Your task to perform on an android device: toggle javascript in the chrome app Image 0: 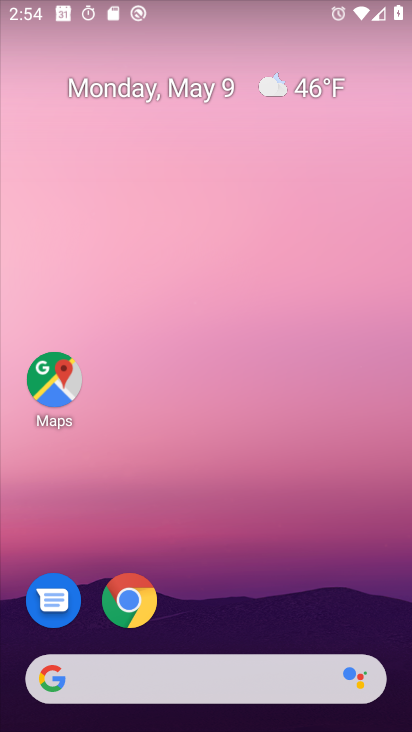
Step 0: click (375, 551)
Your task to perform on an android device: toggle javascript in the chrome app Image 1: 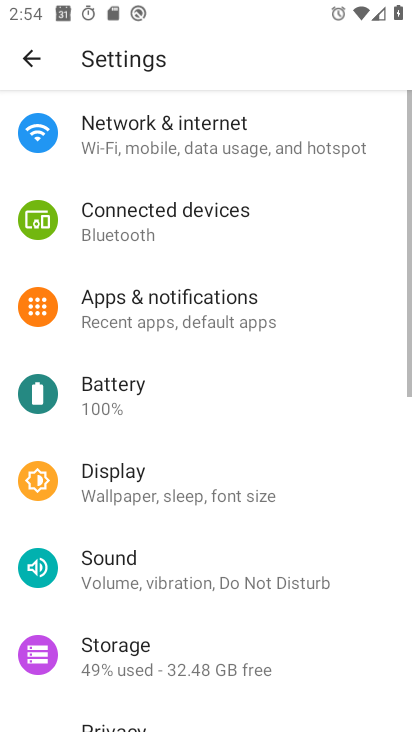
Step 1: drag from (214, 658) to (176, 147)
Your task to perform on an android device: toggle javascript in the chrome app Image 2: 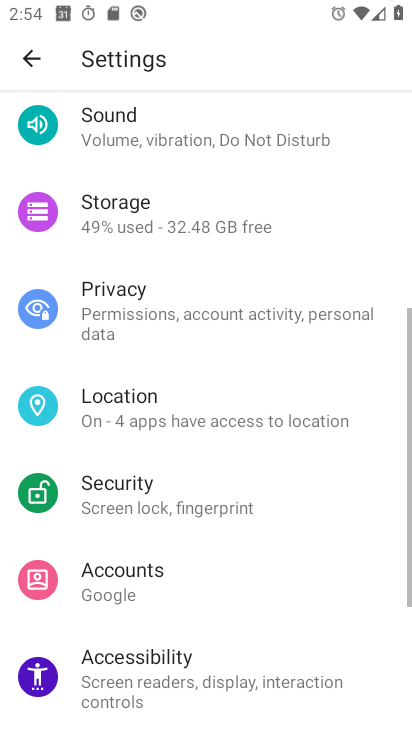
Step 2: press home button
Your task to perform on an android device: toggle javascript in the chrome app Image 3: 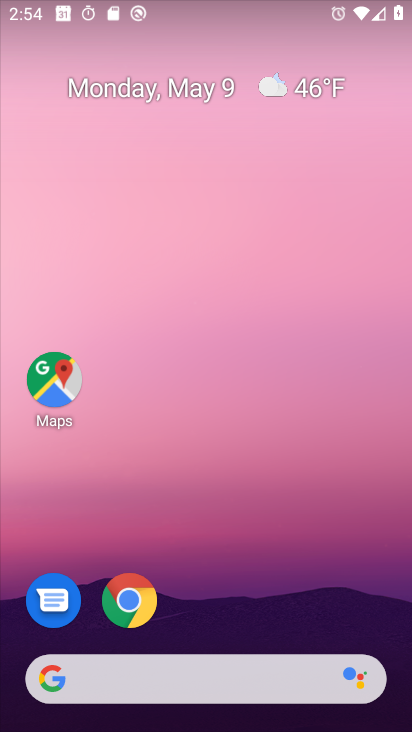
Step 3: click (148, 605)
Your task to perform on an android device: toggle javascript in the chrome app Image 4: 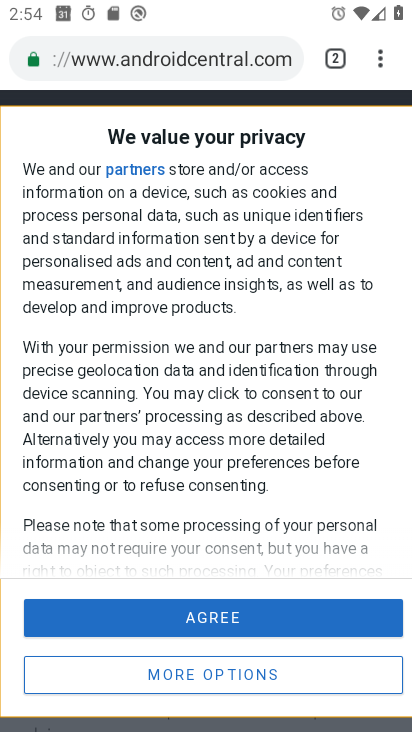
Step 4: click (389, 55)
Your task to perform on an android device: toggle javascript in the chrome app Image 5: 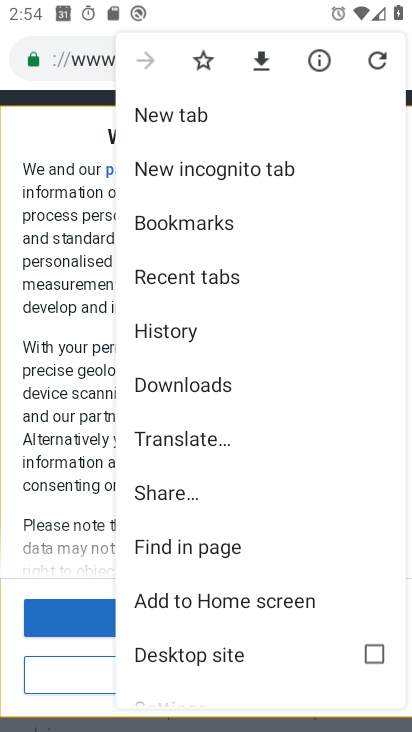
Step 5: drag from (223, 606) to (209, 124)
Your task to perform on an android device: toggle javascript in the chrome app Image 6: 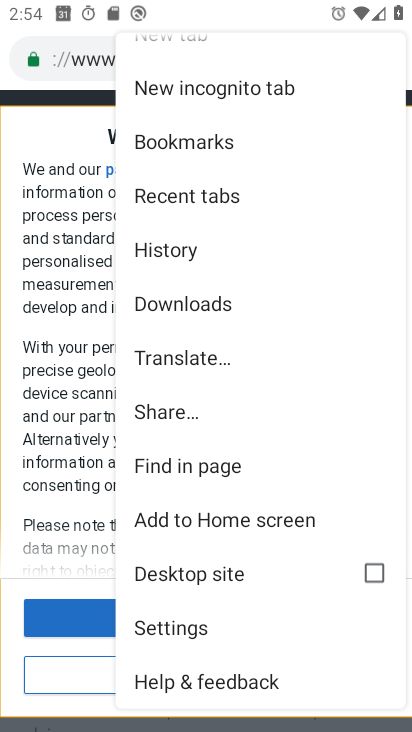
Step 6: click (207, 630)
Your task to perform on an android device: toggle javascript in the chrome app Image 7: 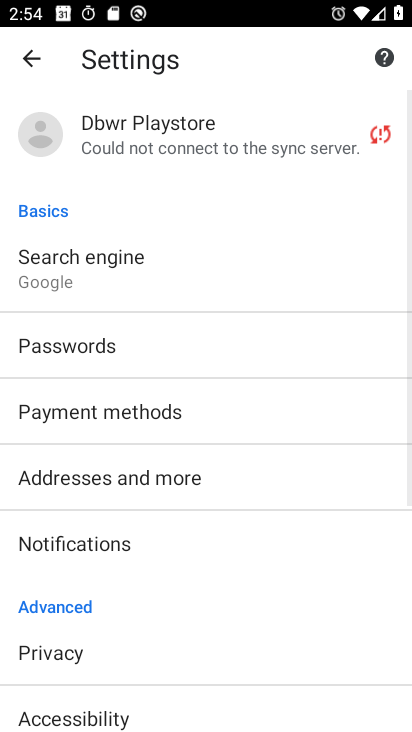
Step 7: drag from (128, 578) to (87, 165)
Your task to perform on an android device: toggle javascript in the chrome app Image 8: 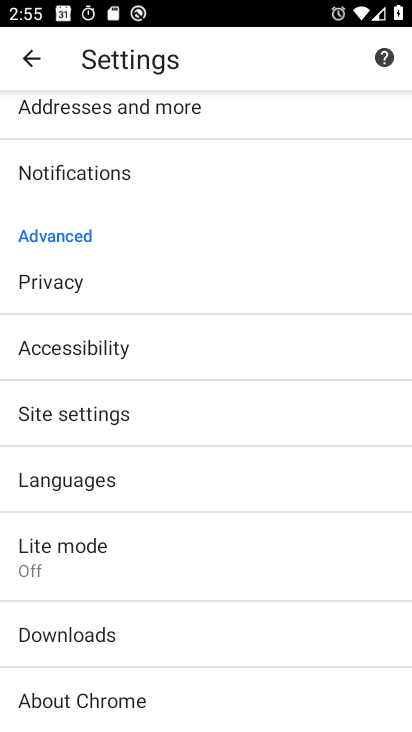
Step 8: click (92, 406)
Your task to perform on an android device: toggle javascript in the chrome app Image 9: 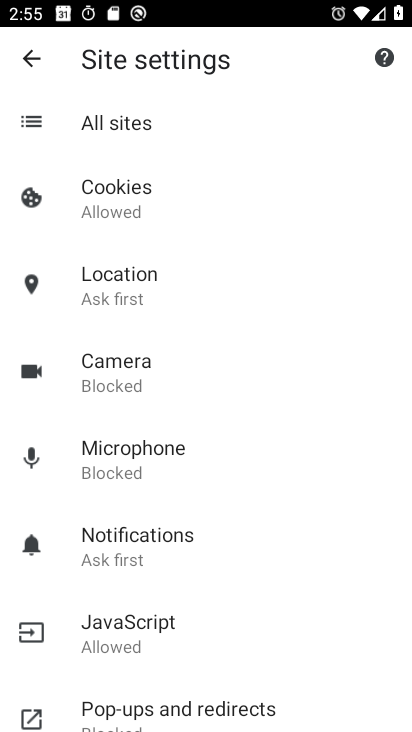
Step 9: click (185, 614)
Your task to perform on an android device: toggle javascript in the chrome app Image 10: 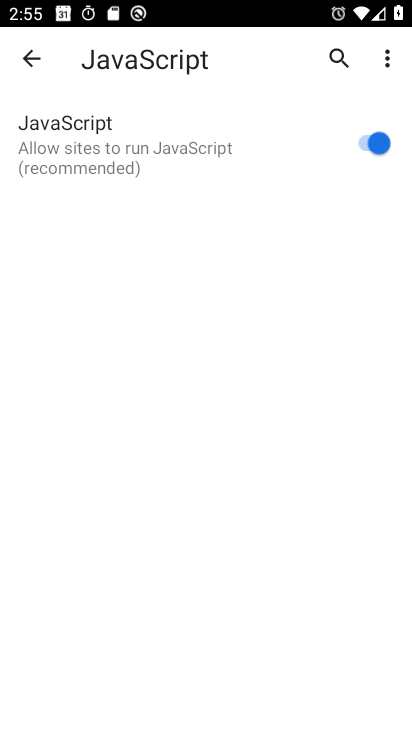
Step 10: click (360, 148)
Your task to perform on an android device: toggle javascript in the chrome app Image 11: 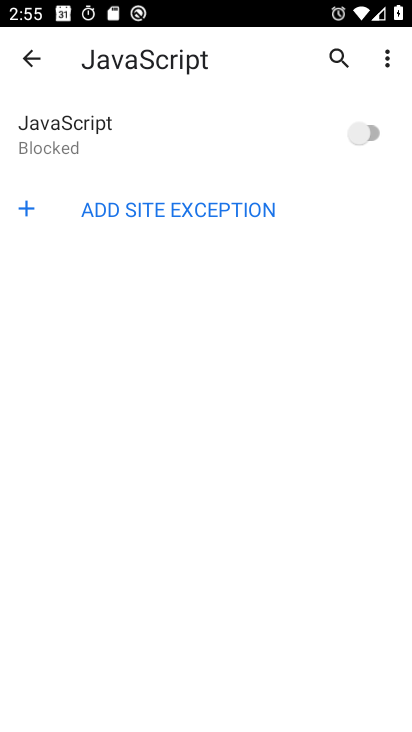
Step 11: task complete